Your task to perform on an android device: open wifi settings Image 0: 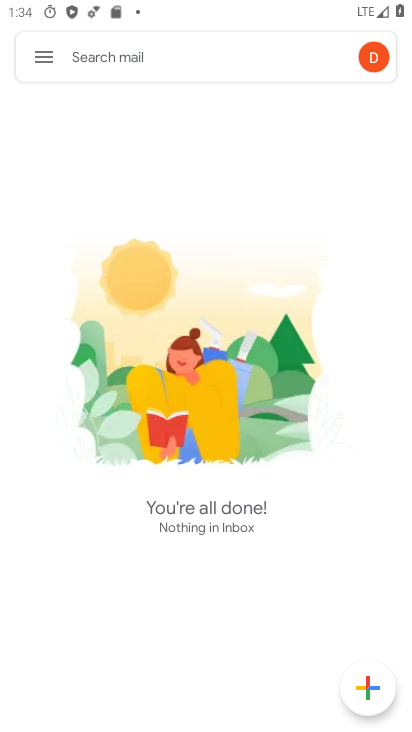
Step 0: drag from (216, 460) to (172, 141)
Your task to perform on an android device: open wifi settings Image 1: 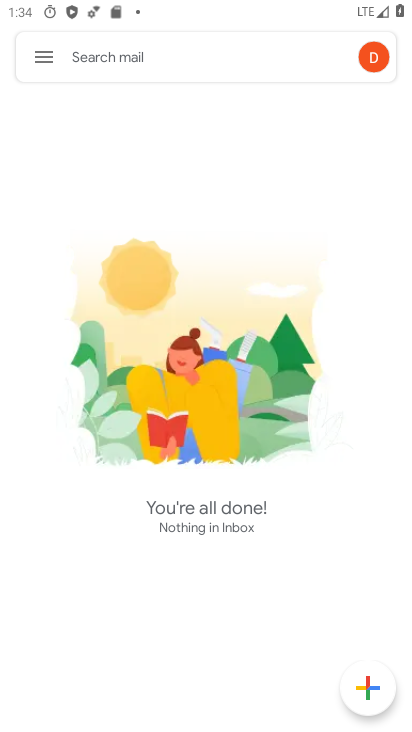
Step 1: press home button
Your task to perform on an android device: open wifi settings Image 2: 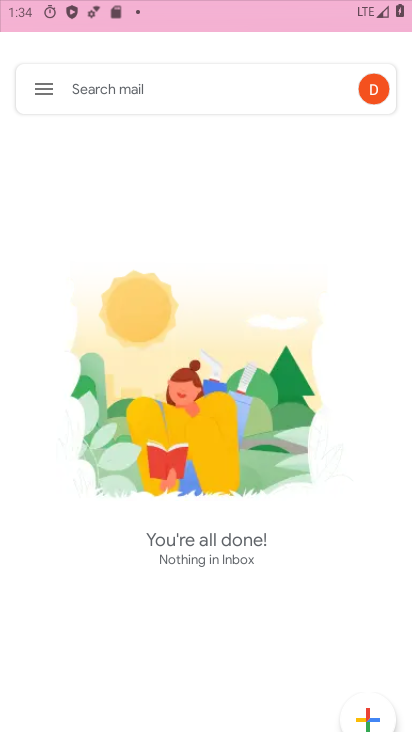
Step 2: drag from (184, 658) to (193, 256)
Your task to perform on an android device: open wifi settings Image 3: 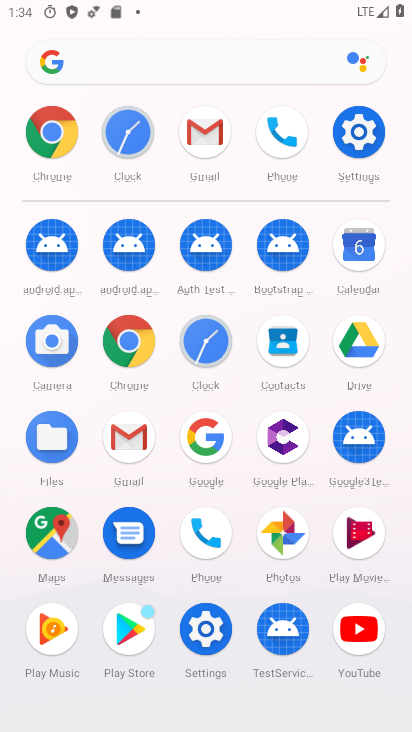
Step 3: click (369, 118)
Your task to perform on an android device: open wifi settings Image 4: 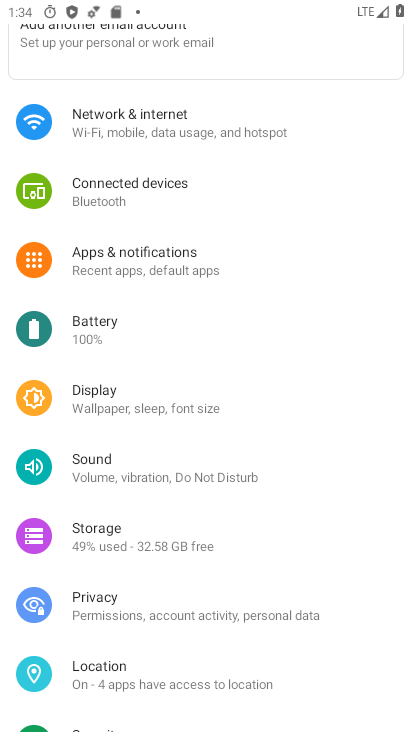
Step 4: drag from (136, 99) to (216, 698)
Your task to perform on an android device: open wifi settings Image 5: 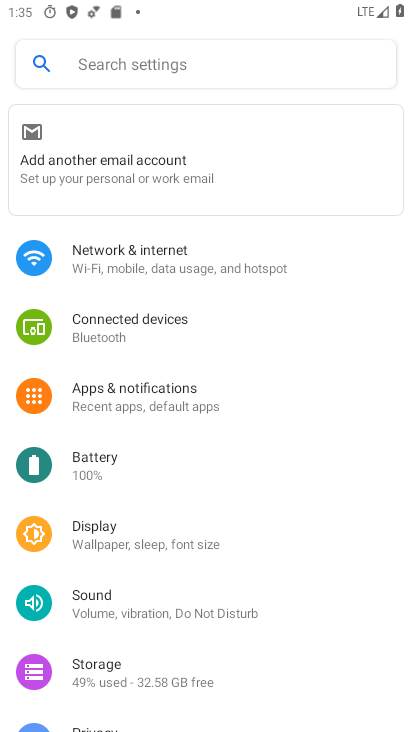
Step 5: click (127, 252)
Your task to perform on an android device: open wifi settings Image 6: 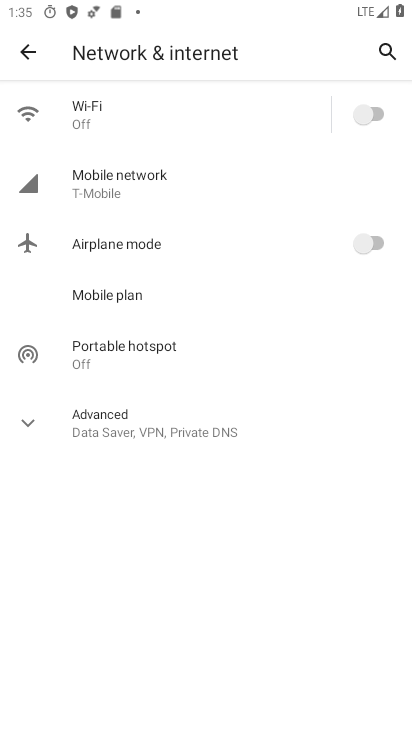
Step 6: click (202, 110)
Your task to perform on an android device: open wifi settings Image 7: 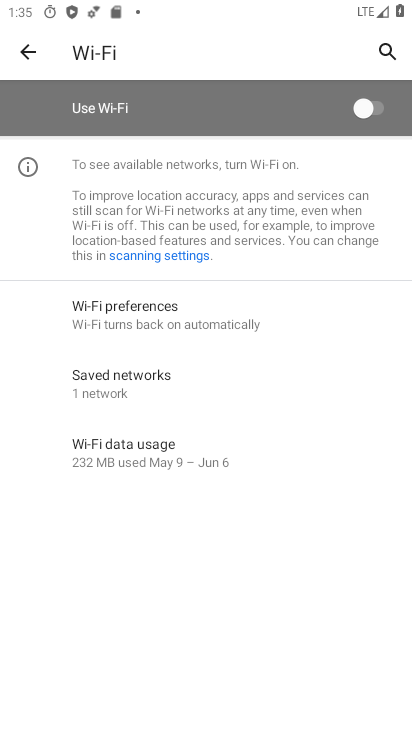
Step 7: click (349, 105)
Your task to perform on an android device: open wifi settings Image 8: 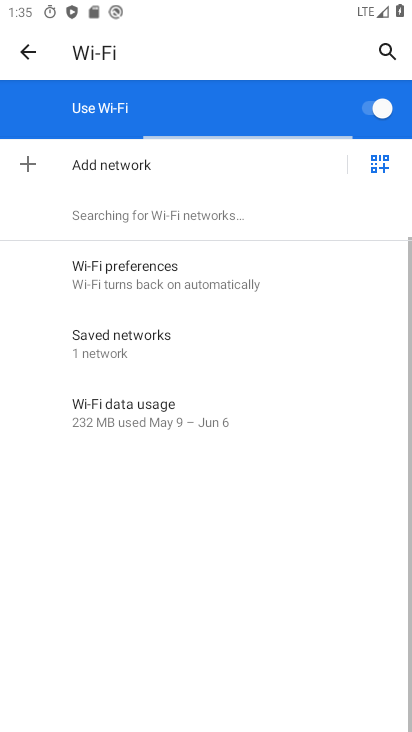
Step 8: task complete